Your task to perform on an android device: uninstall "Google Maps" Image 0: 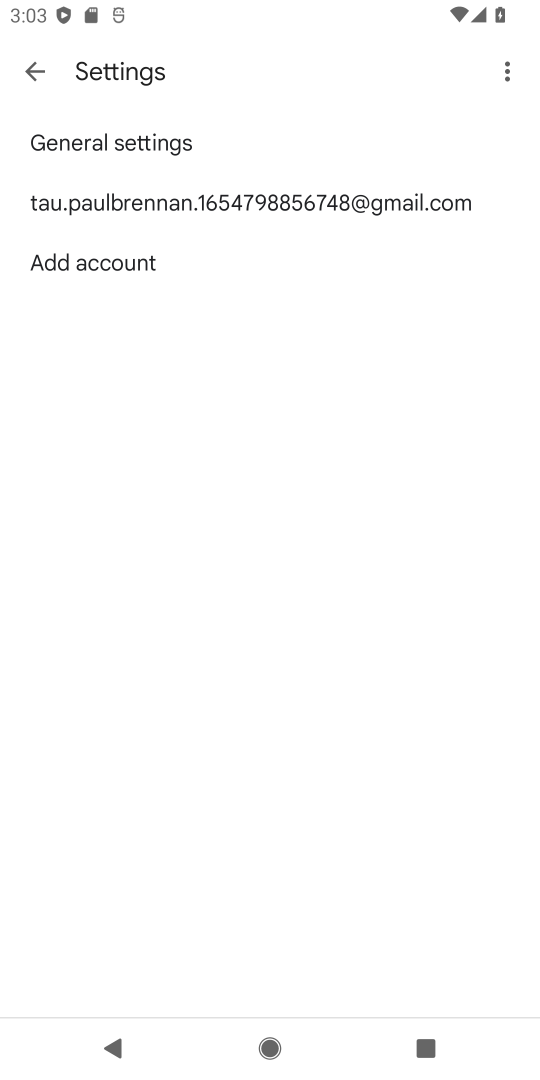
Step 0: press home button
Your task to perform on an android device: uninstall "Google Maps" Image 1: 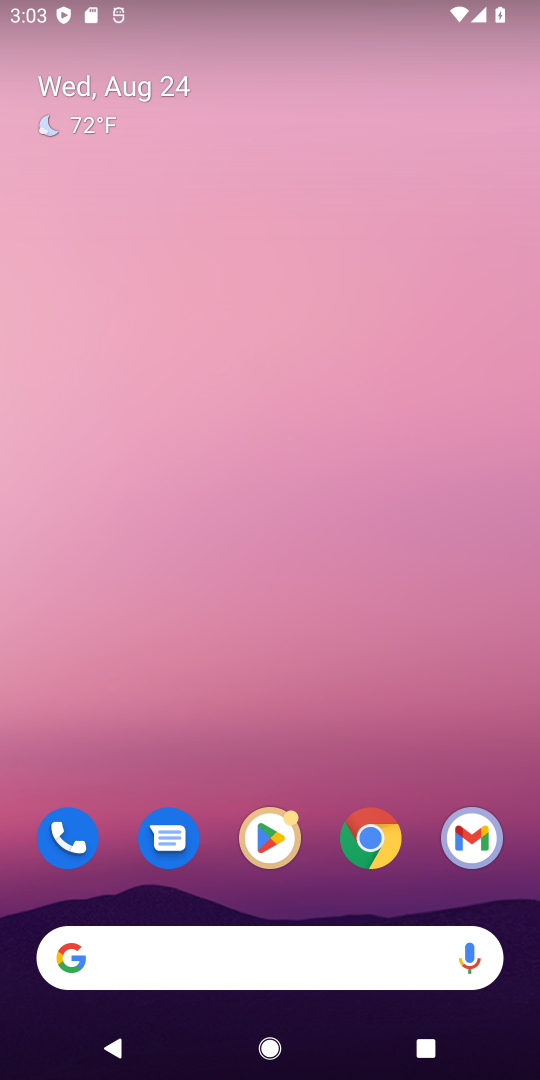
Step 1: drag from (450, 712) to (479, 145)
Your task to perform on an android device: uninstall "Google Maps" Image 2: 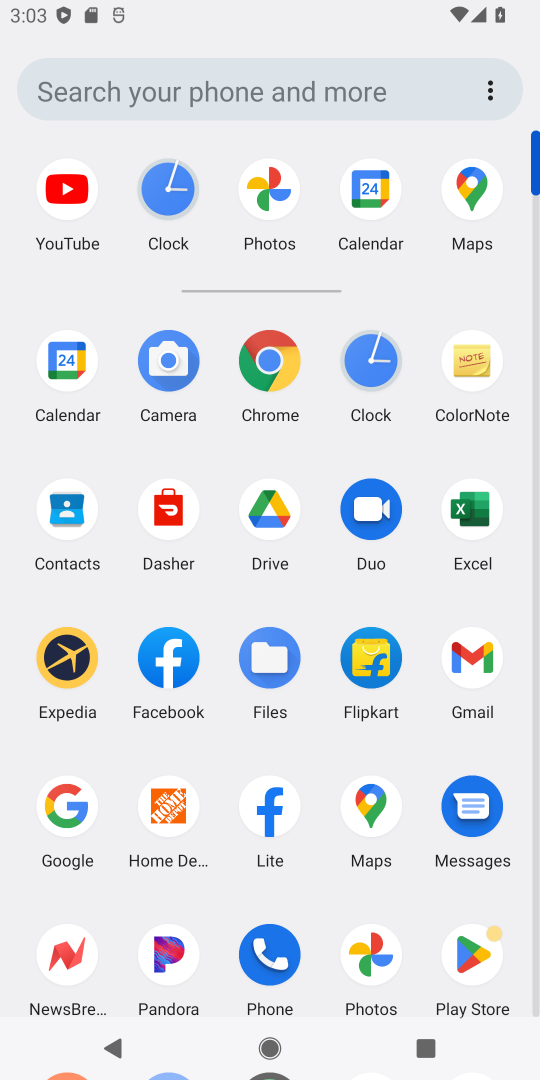
Step 2: click (473, 964)
Your task to perform on an android device: uninstall "Google Maps" Image 3: 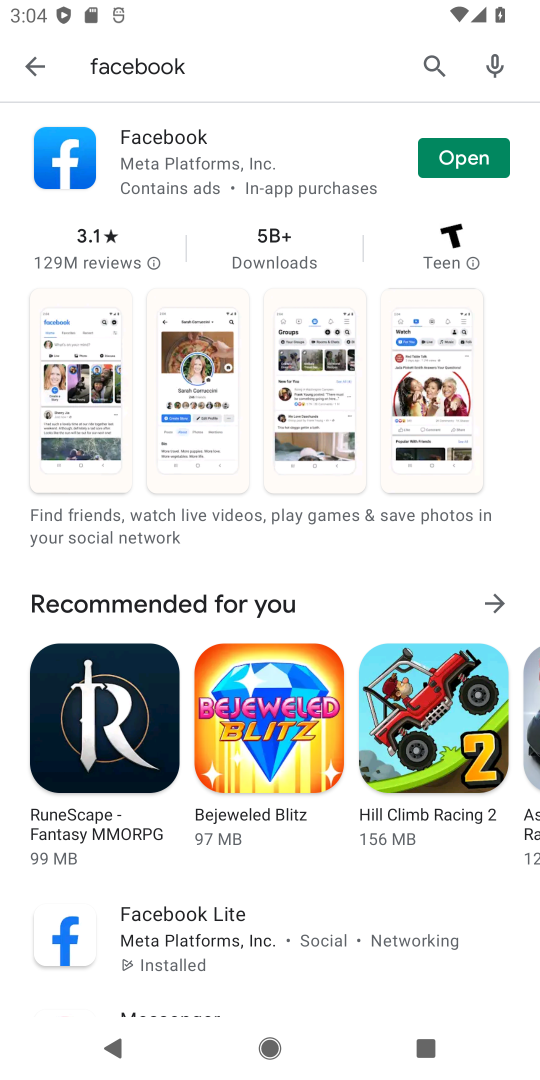
Step 3: press back button
Your task to perform on an android device: uninstall "Google Maps" Image 4: 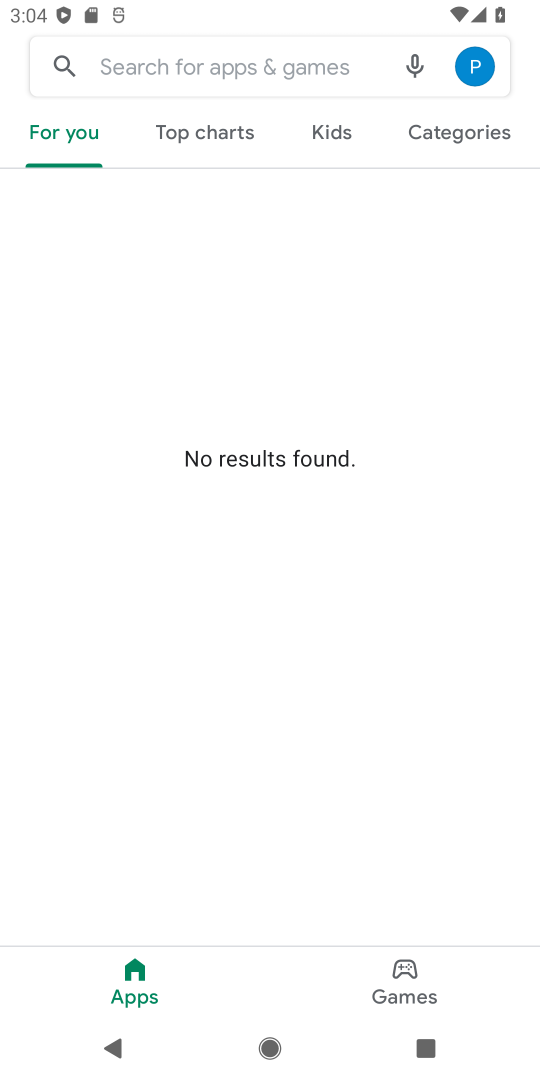
Step 4: click (233, 72)
Your task to perform on an android device: uninstall "Google Maps" Image 5: 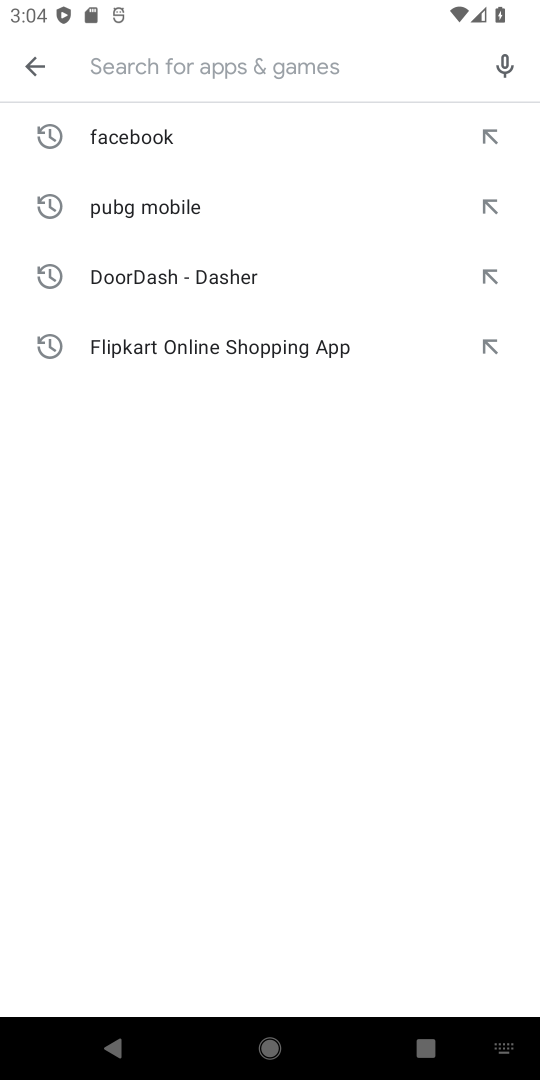
Step 5: type "google maps"
Your task to perform on an android device: uninstall "Google Maps" Image 6: 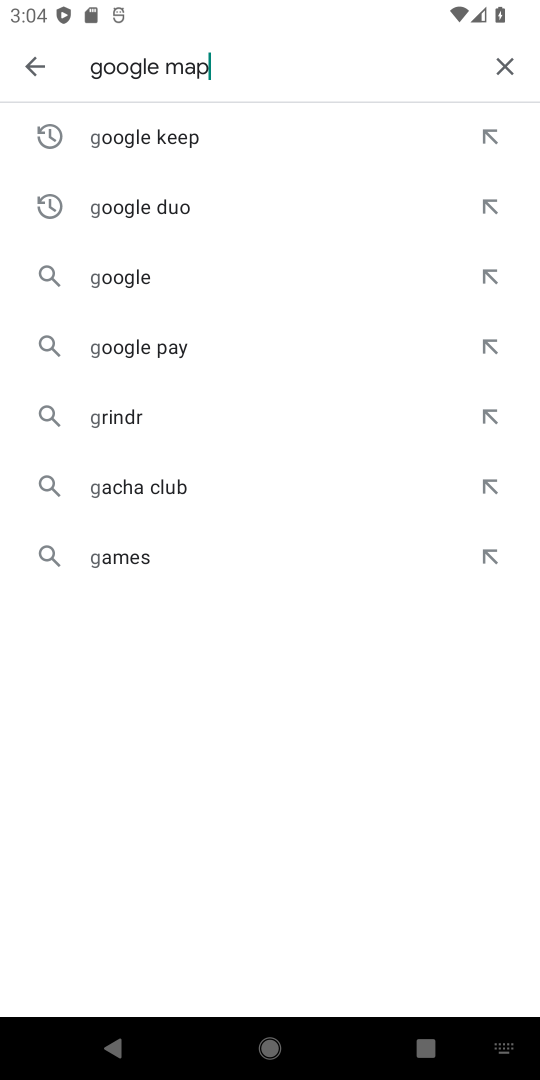
Step 6: press enter
Your task to perform on an android device: uninstall "Google Maps" Image 7: 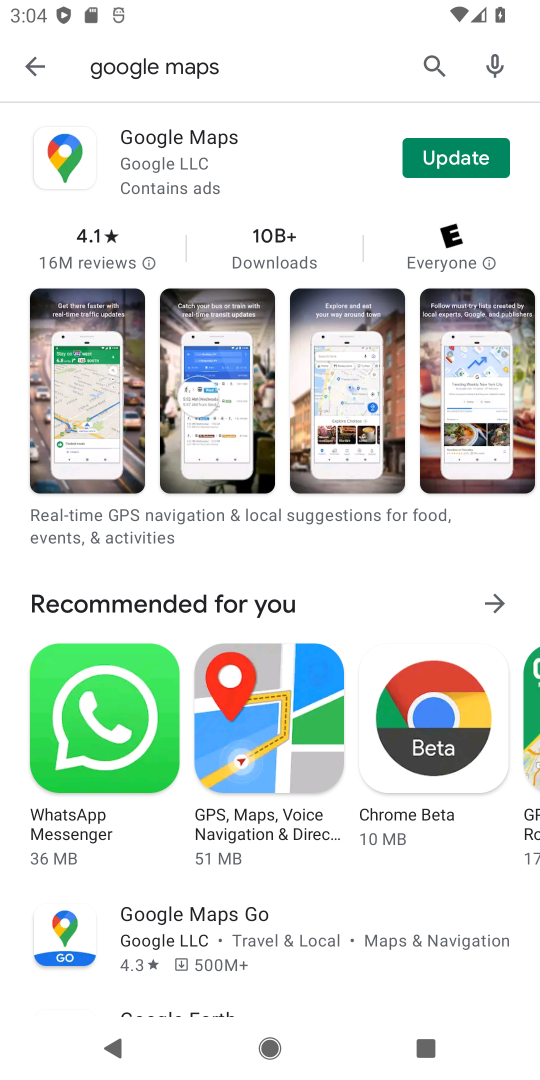
Step 7: task complete